Your task to perform on an android device: open wifi settings Image 0: 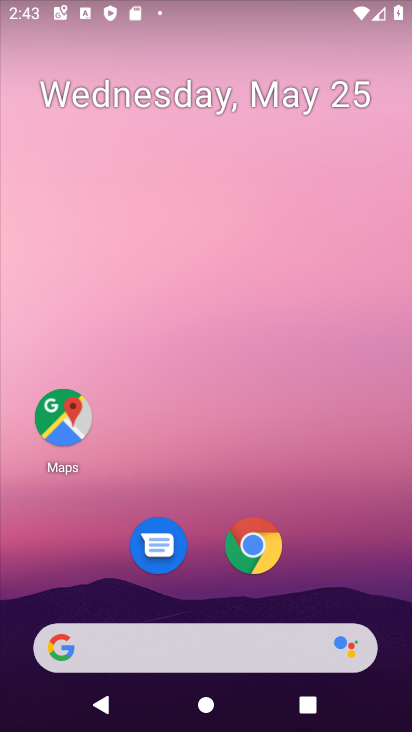
Step 0: drag from (379, 562) to (277, 185)
Your task to perform on an android device: open wifi settings Image 1: 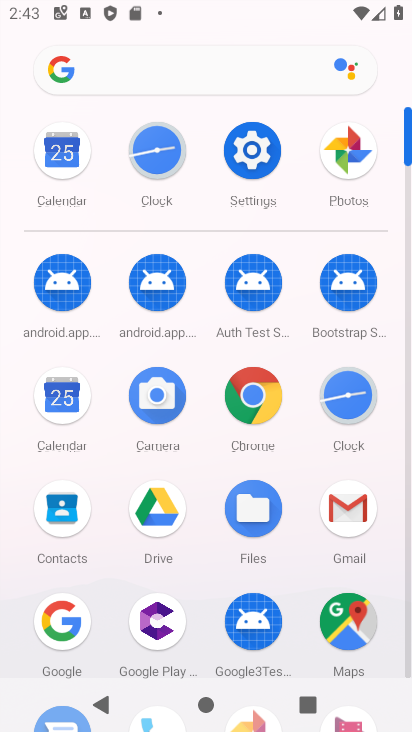
Step 1: click (249, 185)
Your task to perform on an android device: open wifi settings Image 2: 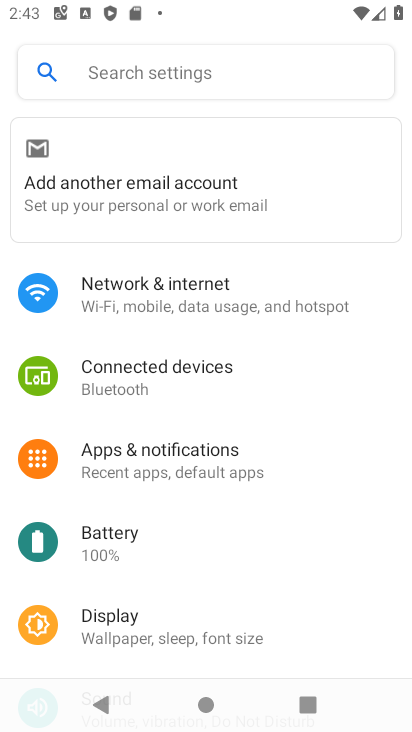
Step 2: click (238, 282)
Your task to perform on an android device: open wifi settings Image 3: 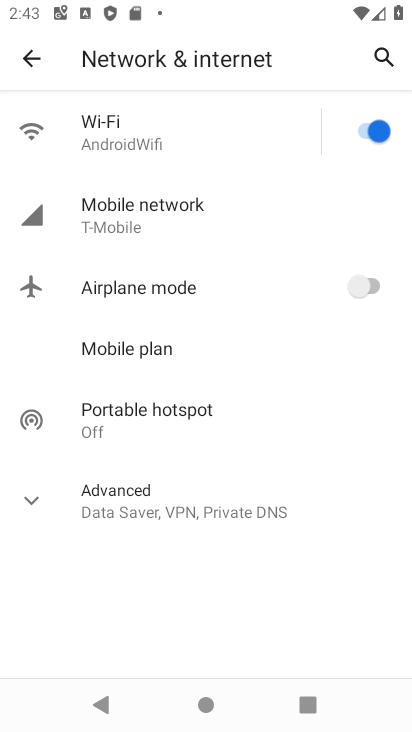
Step 3: task complete